Your task to perform on an android device: open chrome privacy settings Image 0: 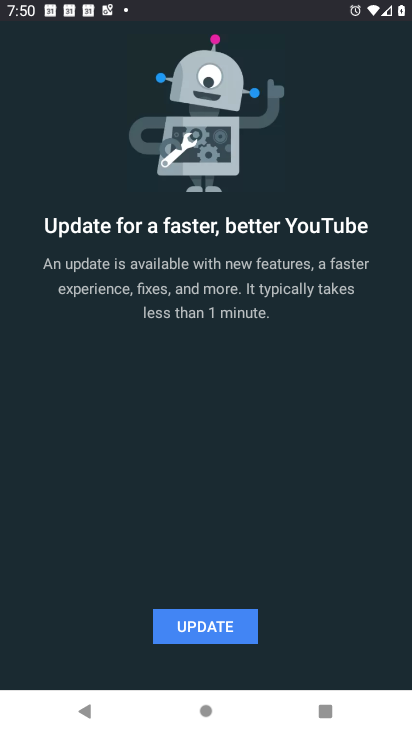
Step 0: press home button
Your task to perform on an android device: open chrome privacy settings Image 1: 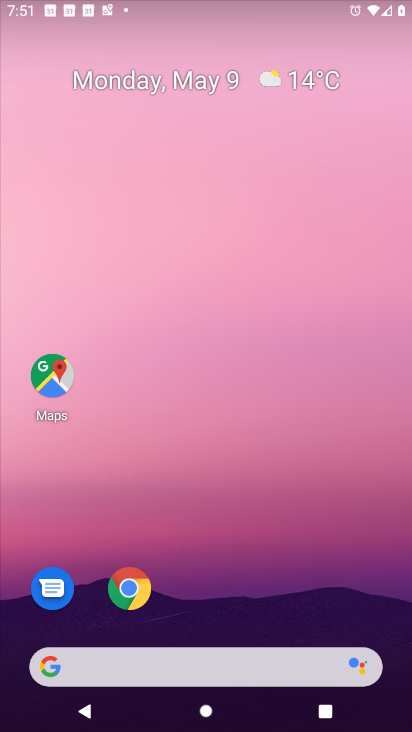
Step 1: drag from (320, 613) to (300, 91)
Your task to perform on an android device: open chrome privacy settings Image 2: 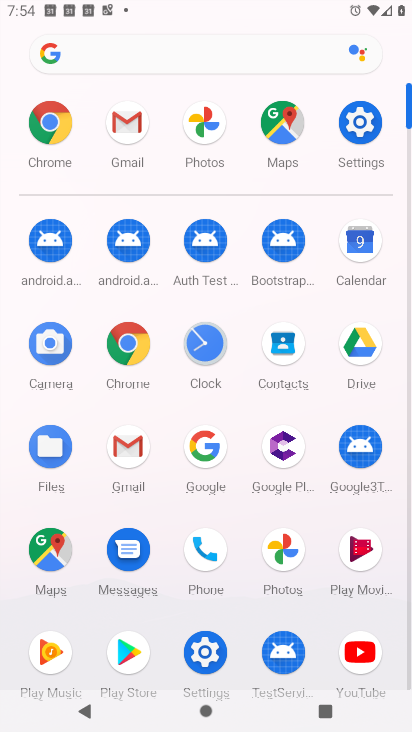
Step 2: click (215, 655)
Your task to perform on an android device: open chrome privacy settings Image 3: 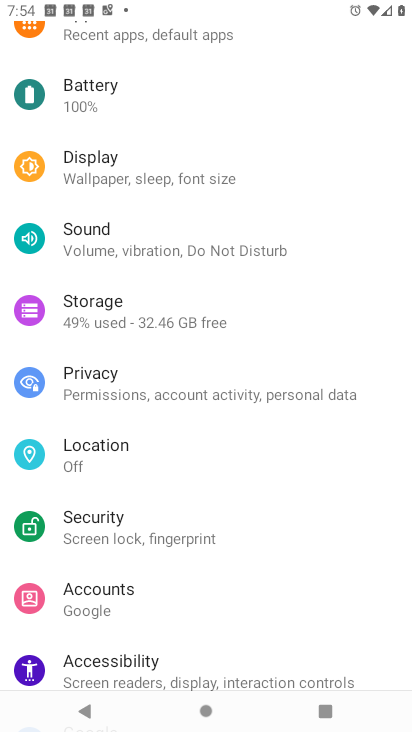
Step 3: click (162, 383)
Your task to perform on an android device: open chrome privacy settings Image 4: 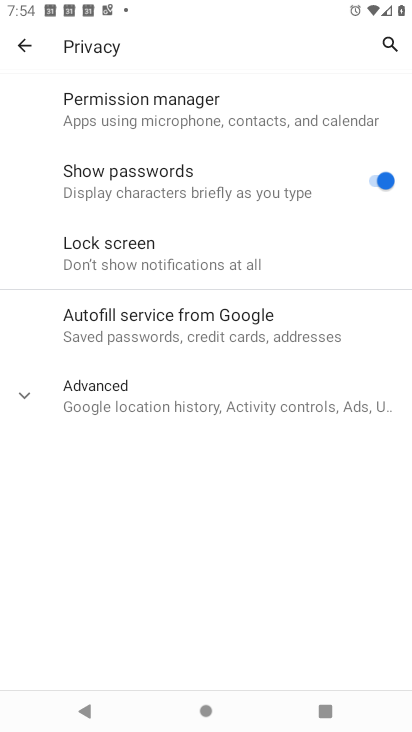
Step 4: task complete